Your task to perform on an android device: Go to network settings Image 0: 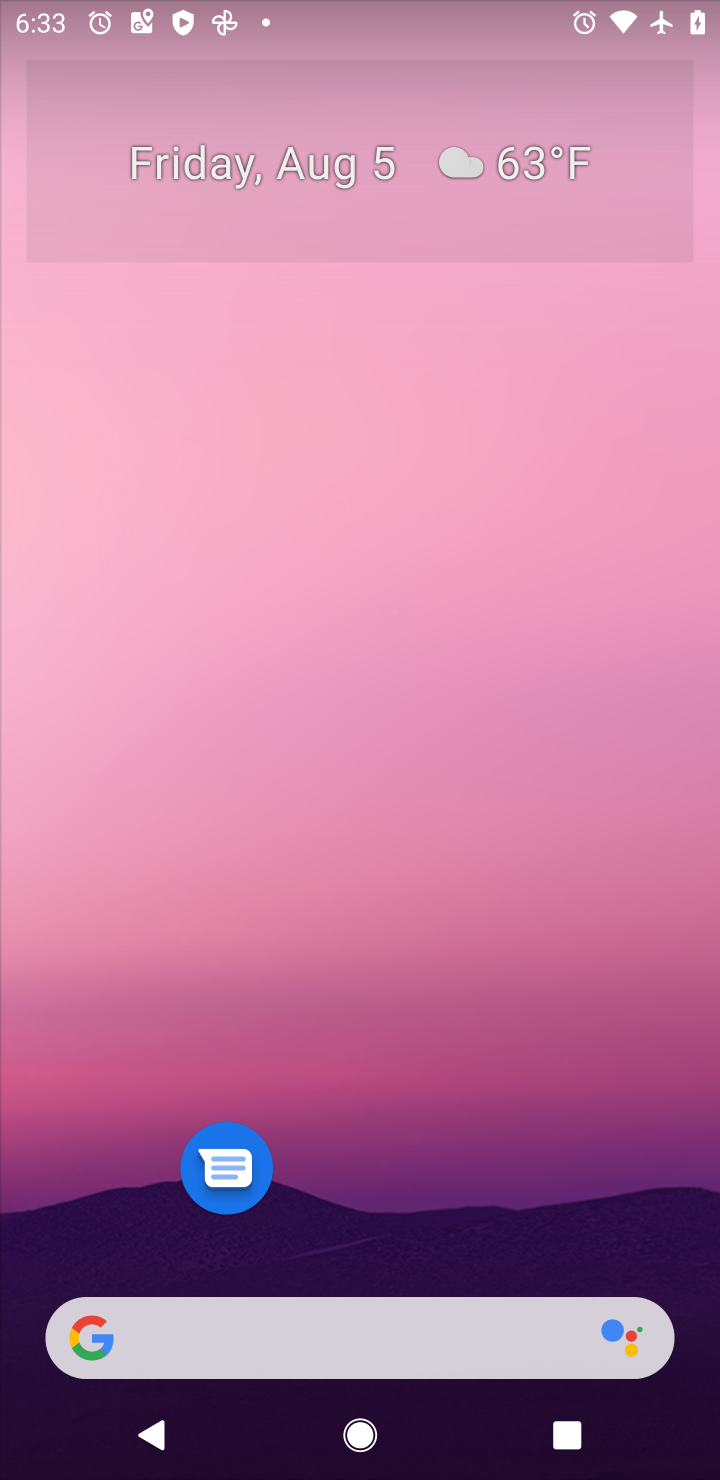
Step 0: press home button
Your task to perform on an android device: Go to network settings Image 1: 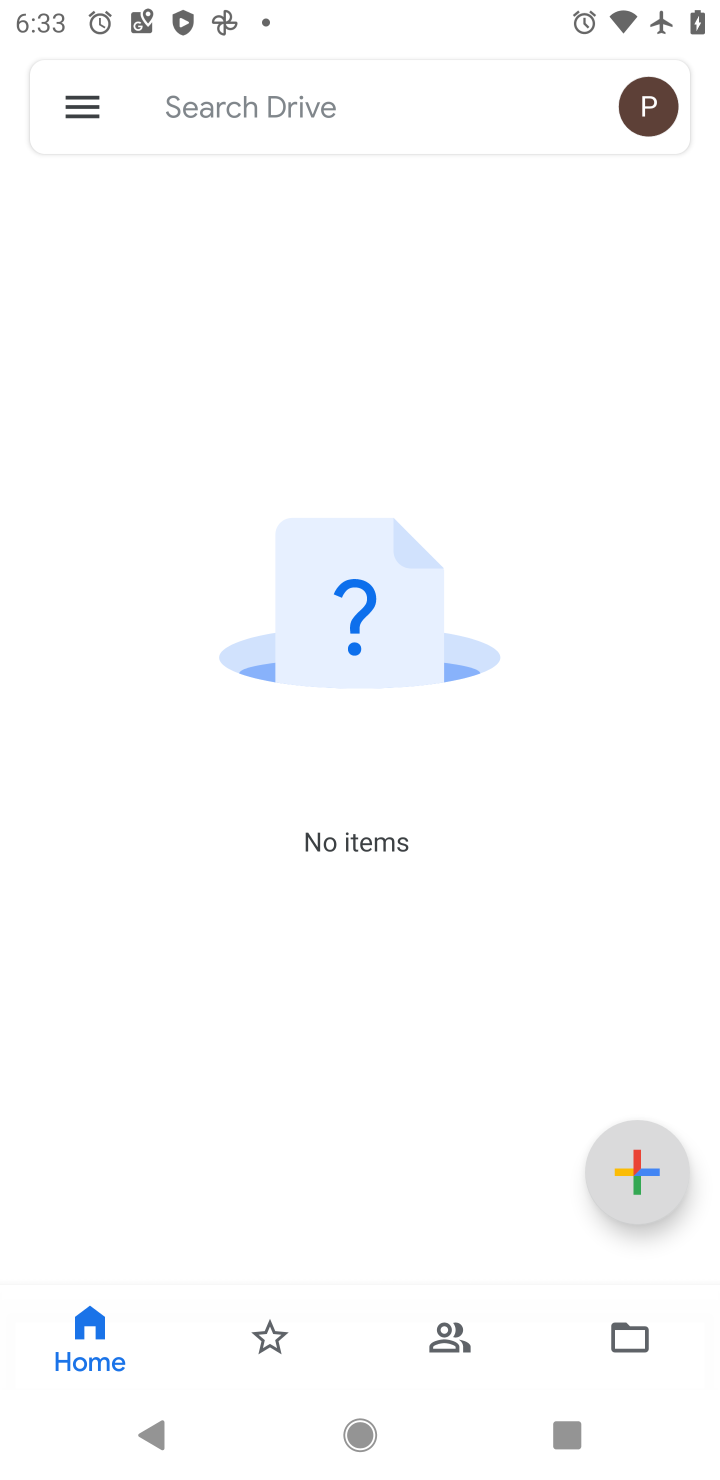
Step 1: press home button
Your task to perform on an android device: Go to network settings Image 2: 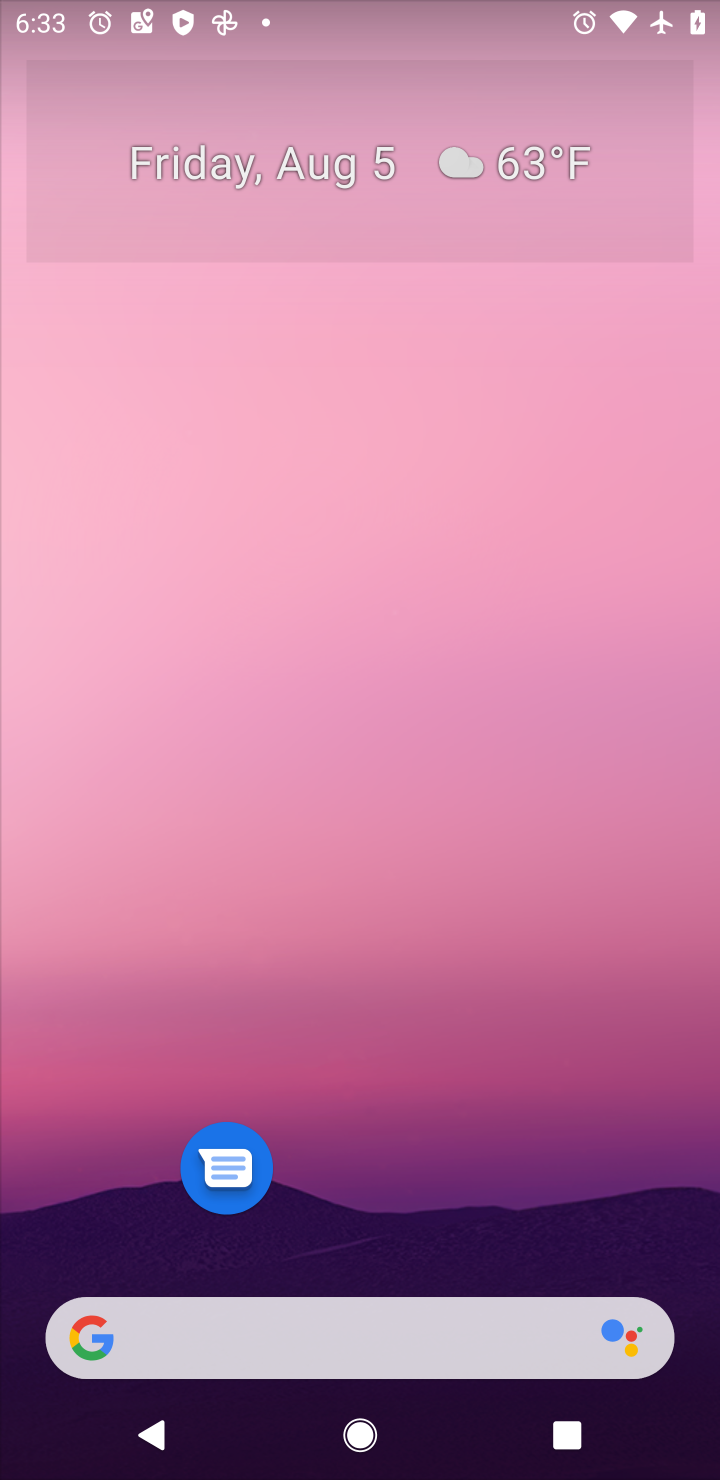
Step 2: drag from (489, 1145) to (688, 28)
Your task to perform on an android device: Go to network settings Image 3: 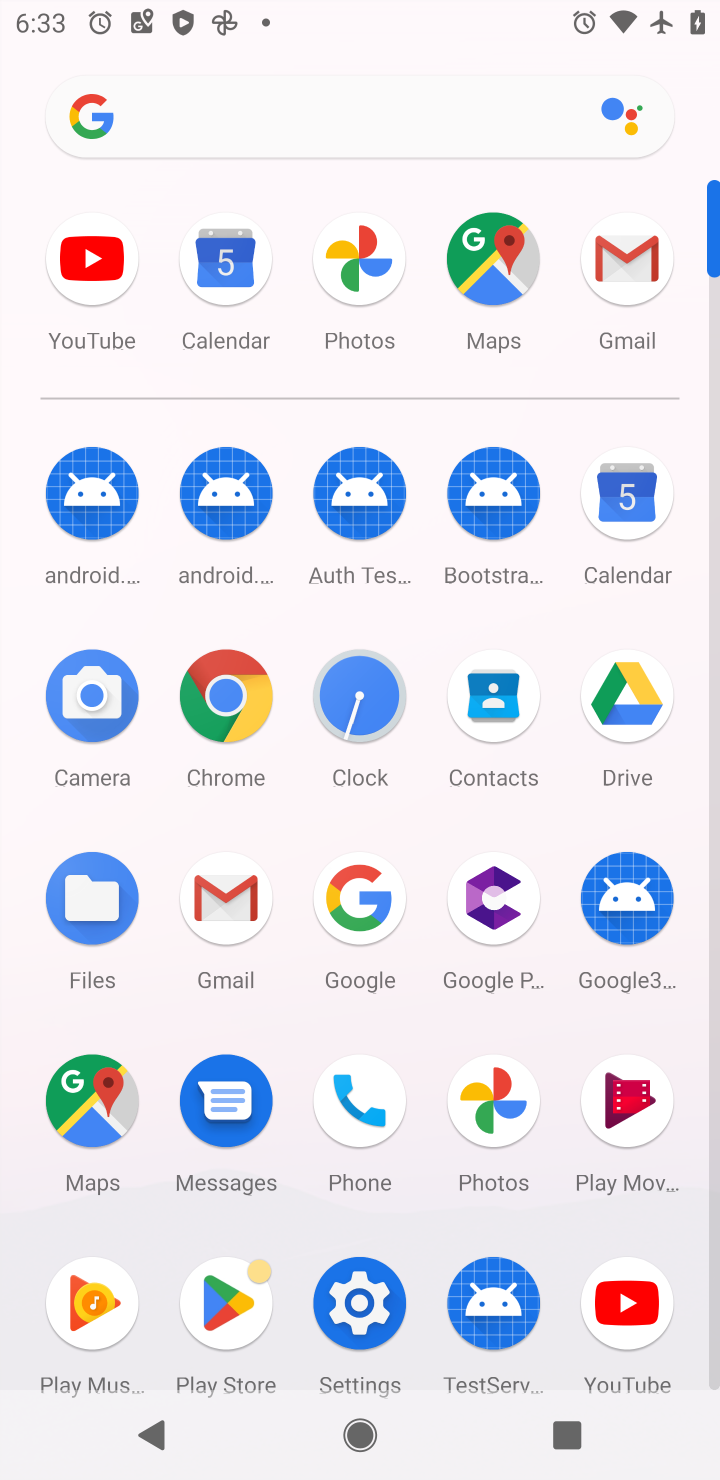
Step 3: click (346, 1323)
Your task to perform on an android device: Go to network settings Image 4: 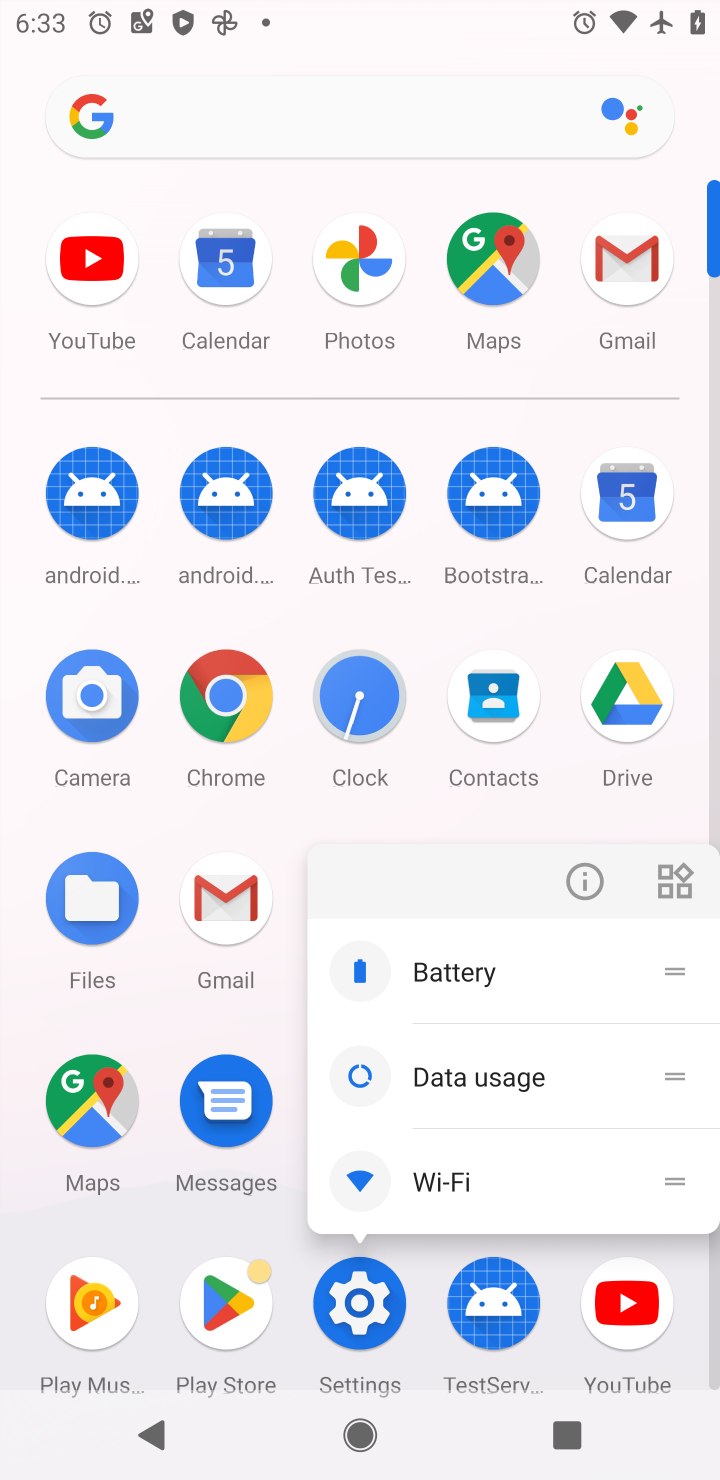
Step 4: click (346, 1323)
Your task to perform on an android device: Go to network settings Image 5: 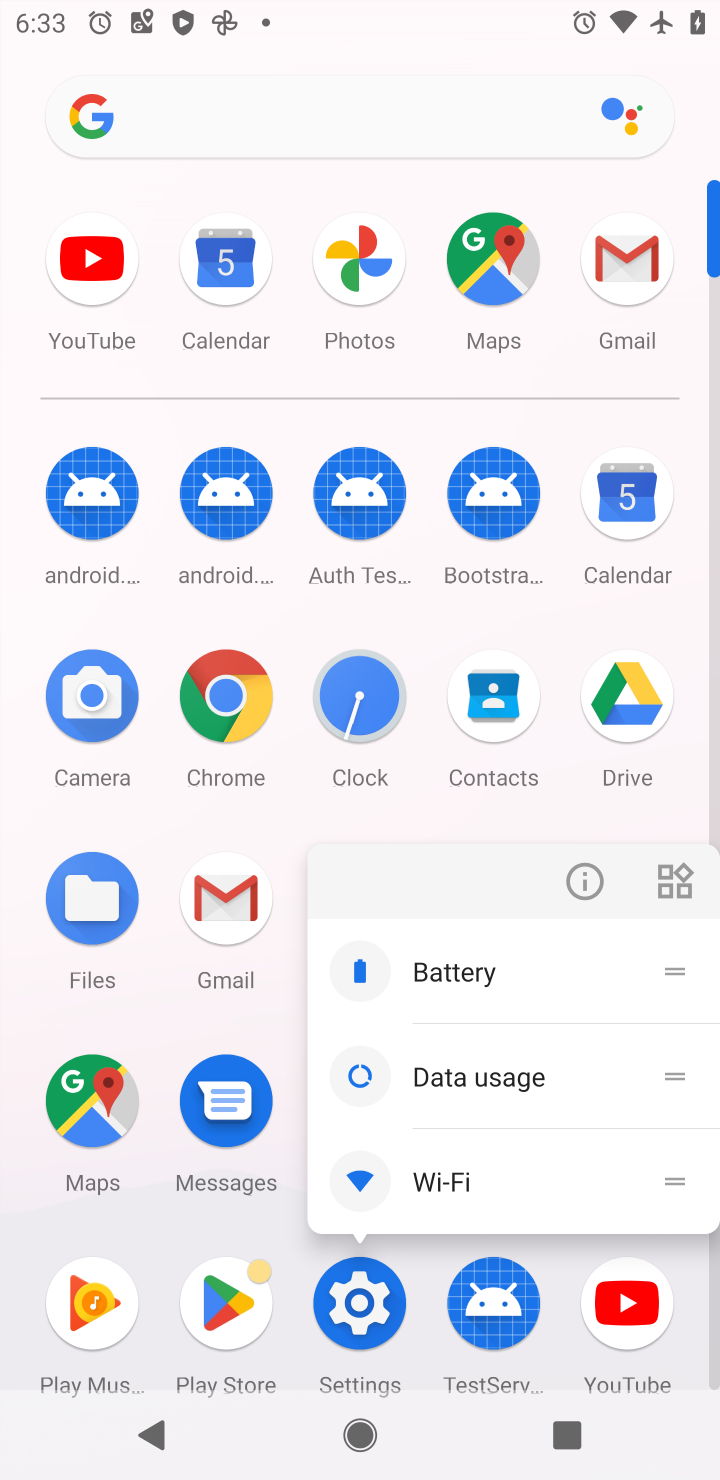
Step 5: click (348, 1323)
Your task to perform on an android device: Go to network settings Image 6: 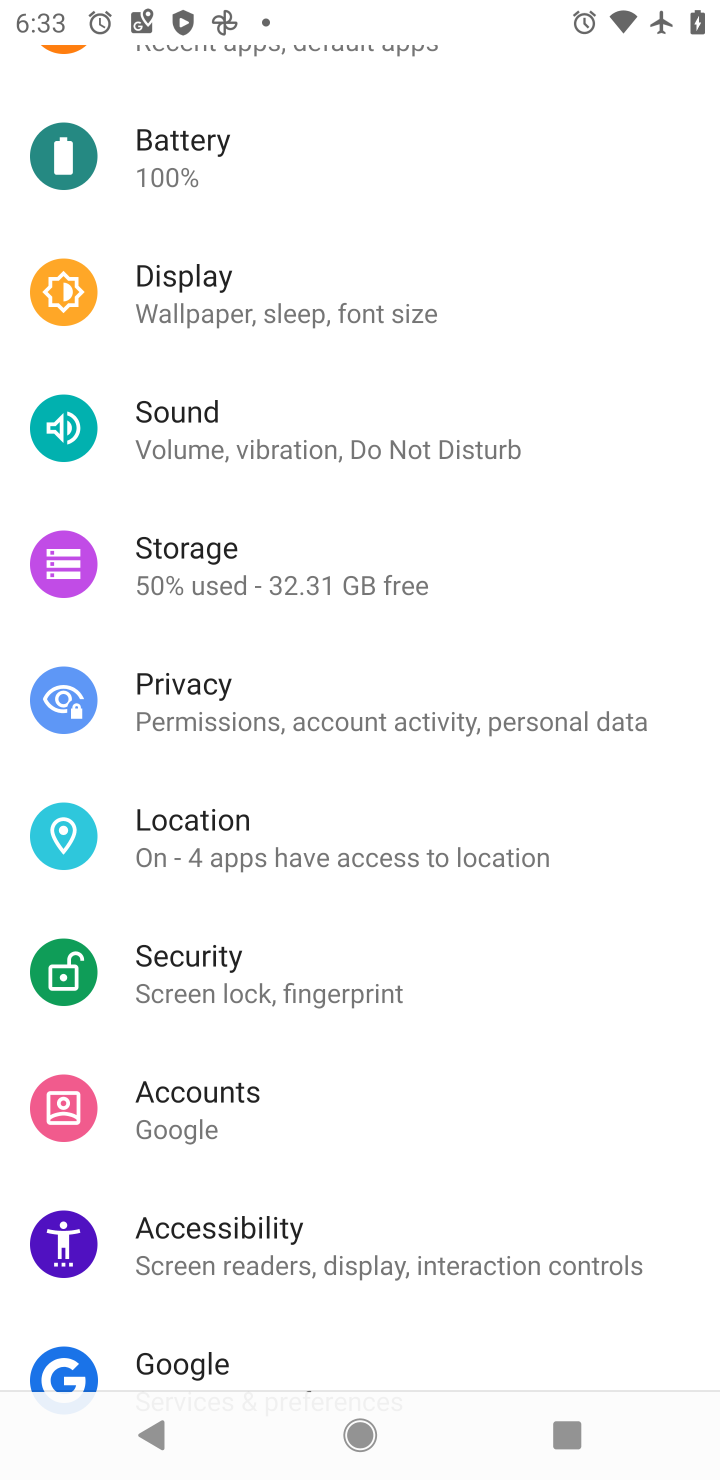
Step 6: drag from (402, 247) to (492, 1467)
Your task to perform on an android device: Go to network settings Image 7: 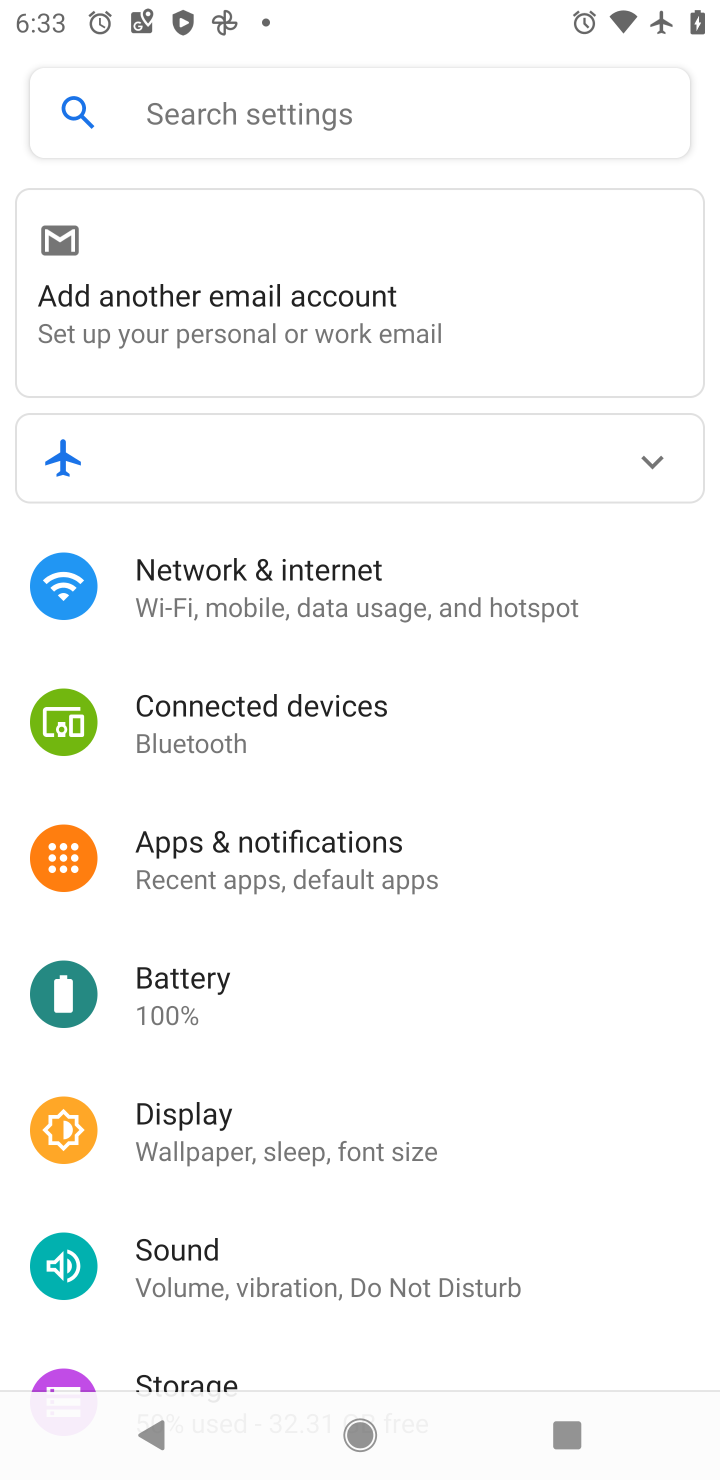
Step 7: click (258, 605)
Your task to perform on an android device: Go to network settings Image 8: 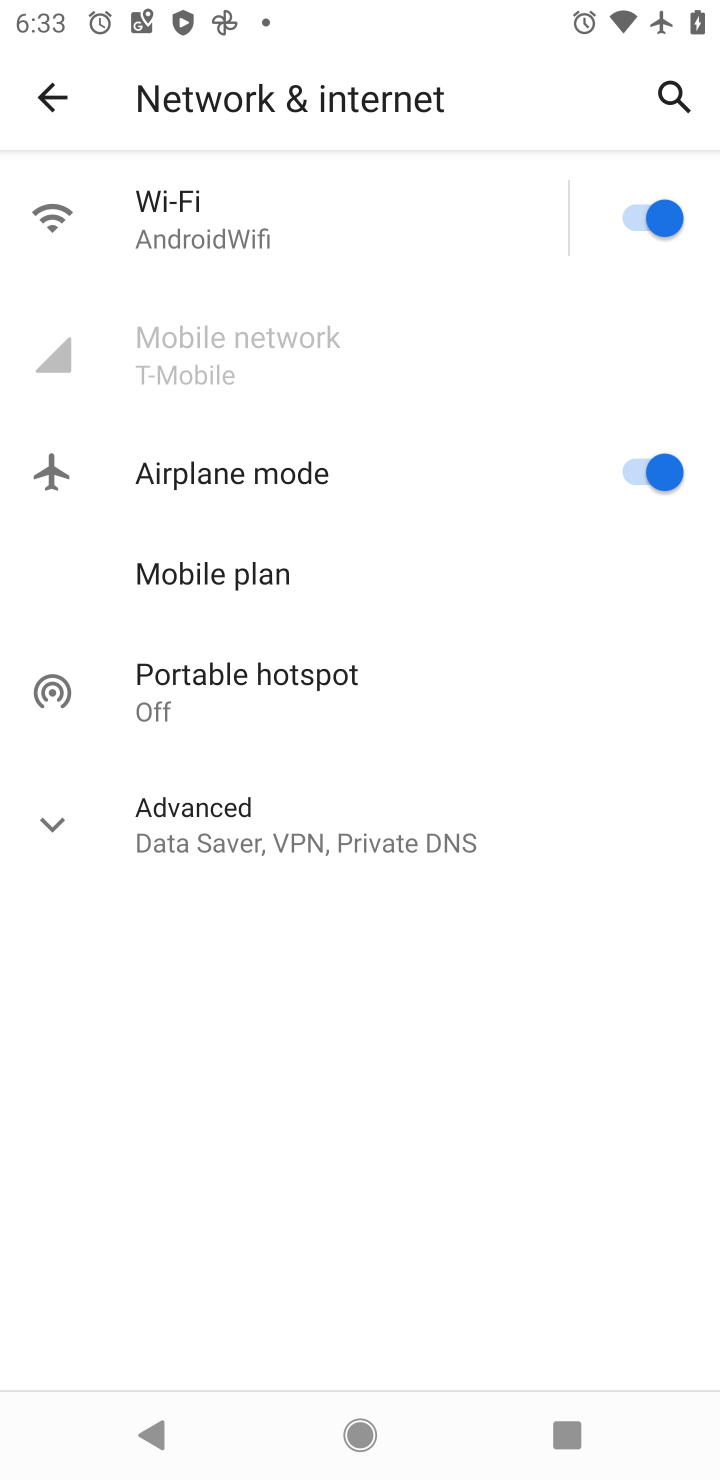
Step 8: task complete